Your task to perform on an android device: show emergency info Image 0: 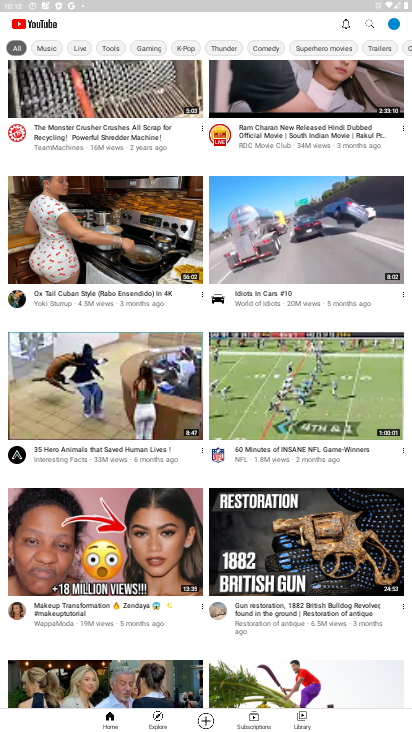
Step 0: click (325, 23)
Your task to perform on an android device: show emergency info Image 1: 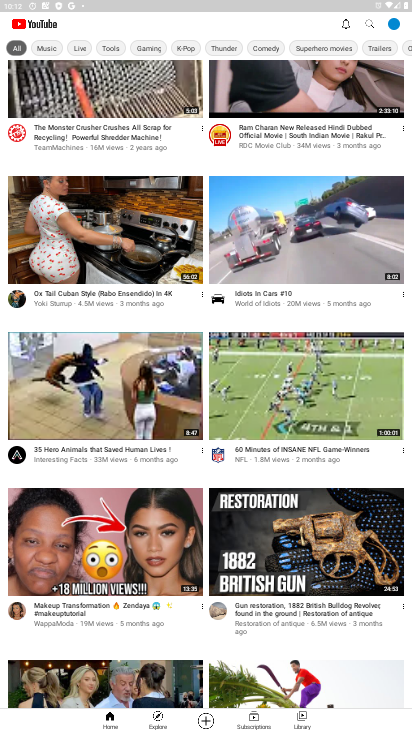
Step 1: drag from (187, 621) to (200, 119)
Your task to perform on an android device: show emergency info Image 2: 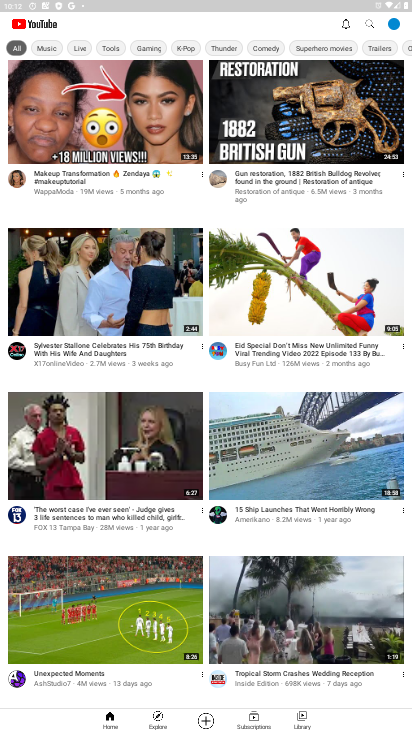
Step 2: drag from (208, 551) to (172, 119)
Your task to perform on an android device: show emergency info Image 3: 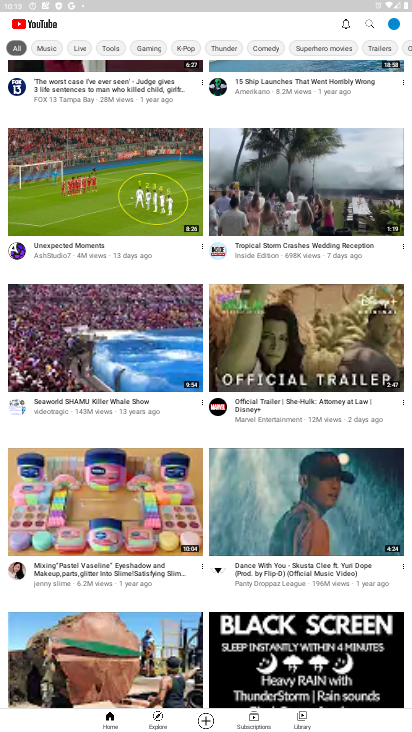
Step 3: drag from (238, 223) to (281, 721)
Your task to perform on an android device: show emergency info Image 4: 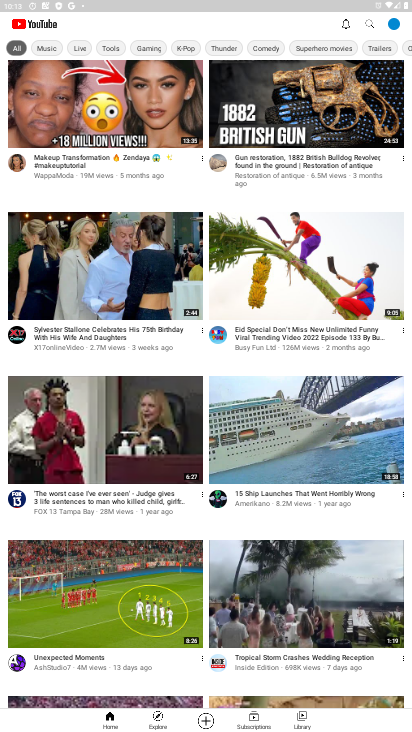
Step 4: drag from (211, 104) to (278, 686)
Your task to perform on an android device: show emergency info Image 5: 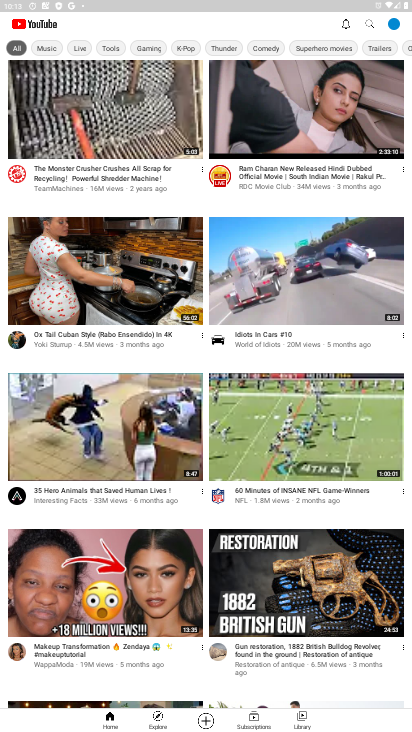
Step 5: press home button
Your task to perform on an android device: show emergency info Image 6: 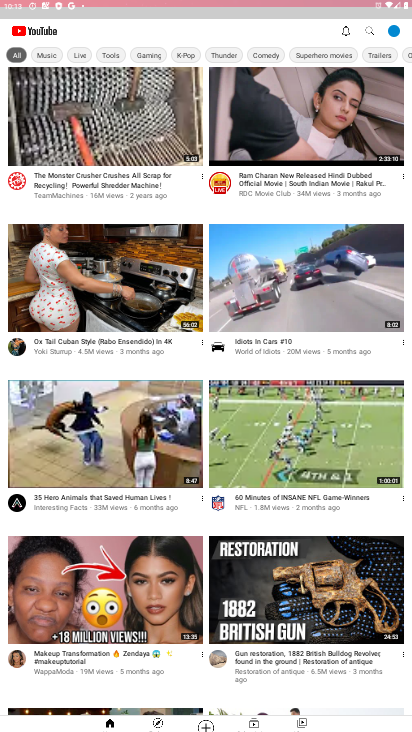
Step 6: drag from (124, 328) to (386, 11)
Your task to perform on an android device: show emergency info Image 7: 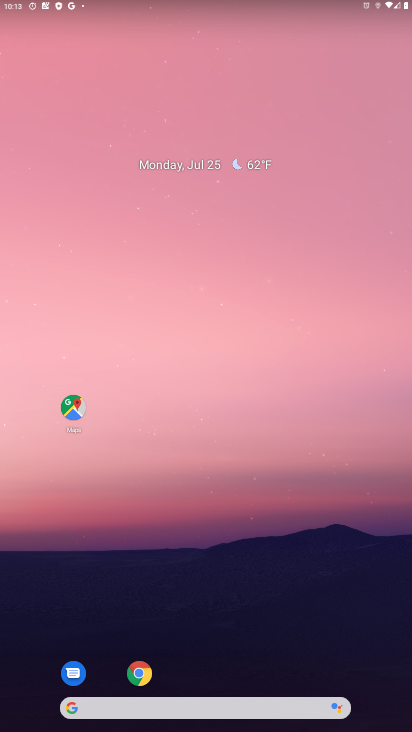
Step 7: drag from (172, 684) to (270, 42)
Your task to perform on an android device: show emergency info Image 8: 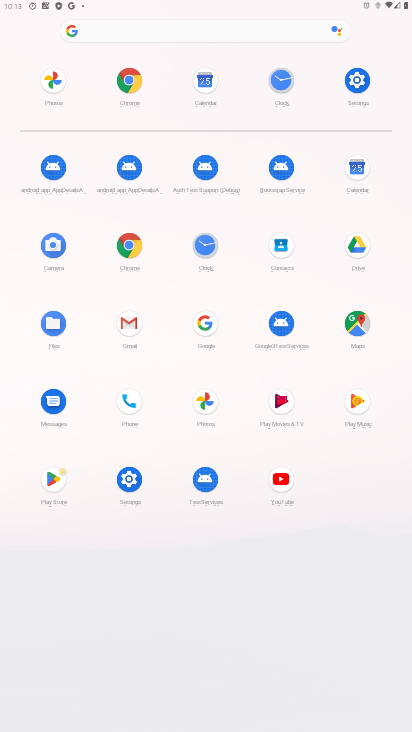
Step 8: click (350, 72)
Your task to perform on an android device: show emergency info Image 9: 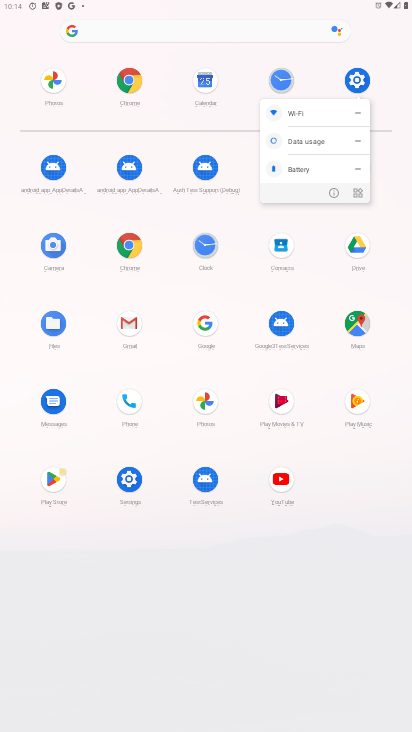
Step 9: click (120, 462)
Your task to perform on an android device: show emergency info Image 10: 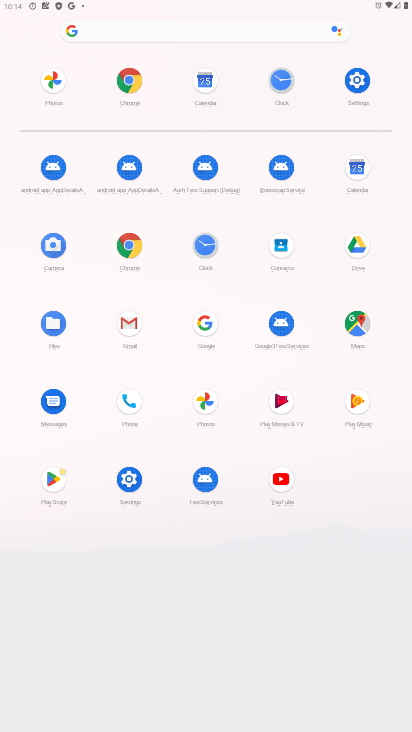
Step 10: click (128, 480)
Your task to perform on an android device: show emergency info Image 11: 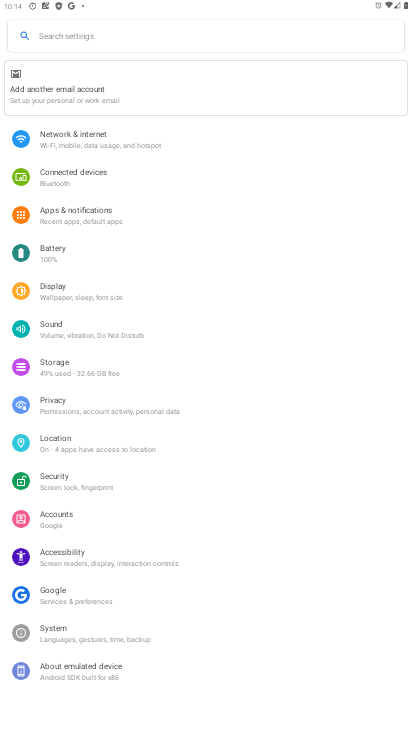
Step 11: click (85, 664)
Your task to perform on an android device: show emergency info Image 12: 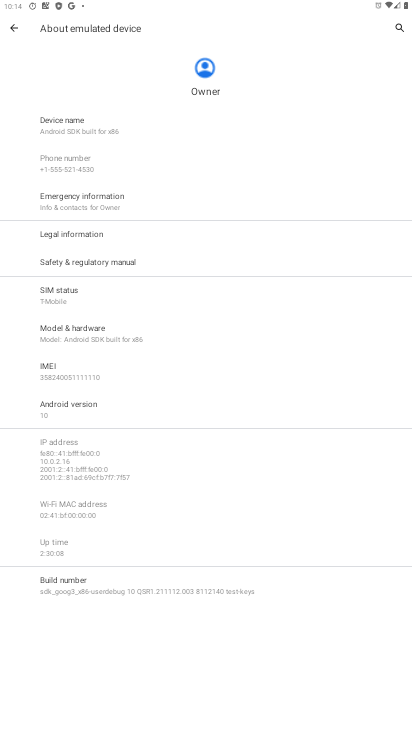
Step 12: drag from (161, 619) to (196, 122)
Your task to perform on an android device: show emergency info Image 13: 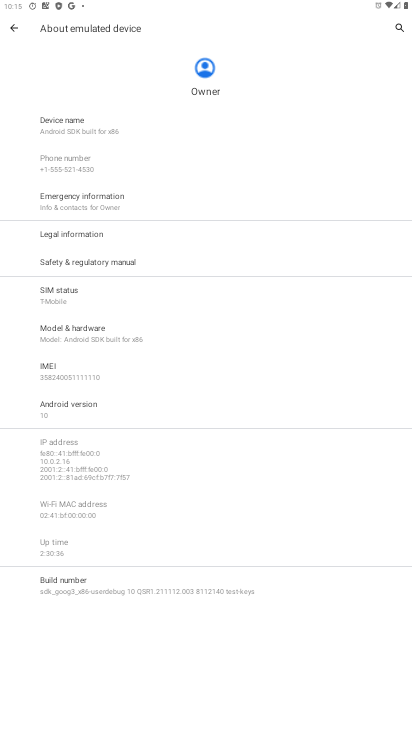
Step 13: click (107, 192)
Your task to perform on an android device: show emergency info Image 14: 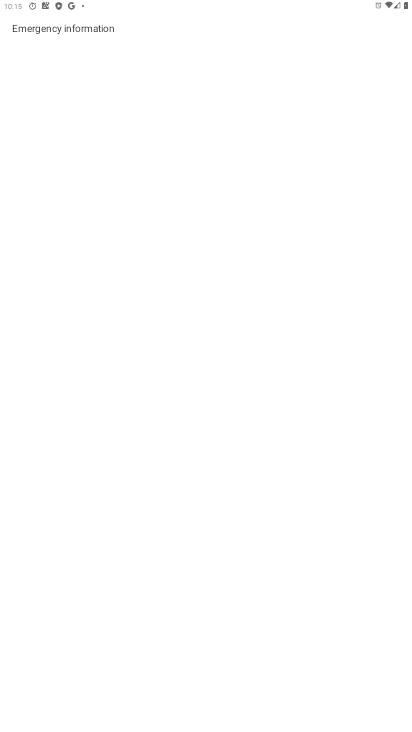
Step 14: task complete